Your task to perform on an android device: toggle notifications settings in the gmail app Image 0: 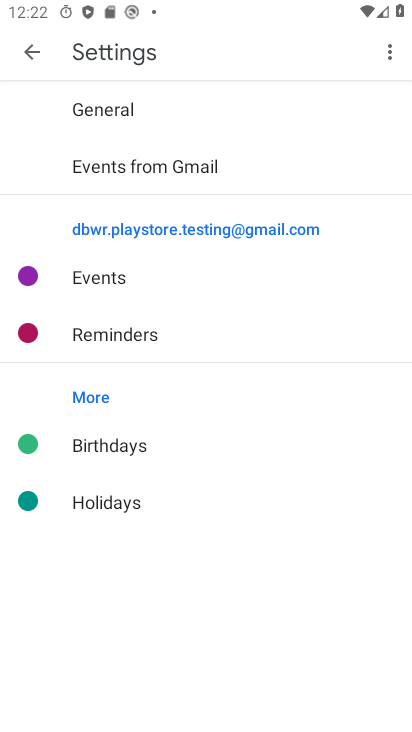
Step 0: press home button
Your task to perform on an android device: toggle notifications settings in the gmail app Image 1: 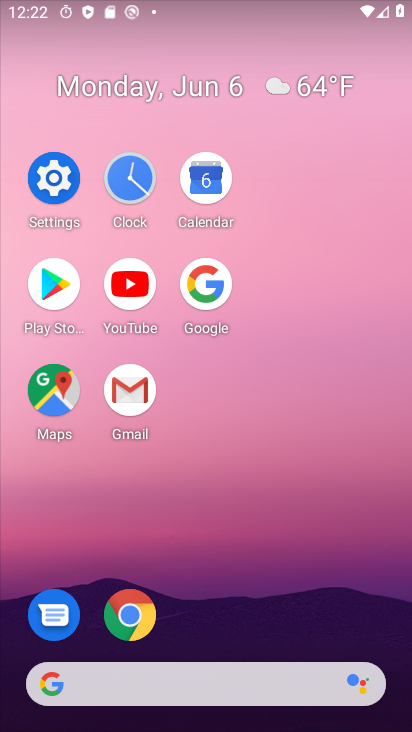
Step 1: click (133, 395)
Your task to perform on an android device: toggle notifications settings in the gmail app Image 2: 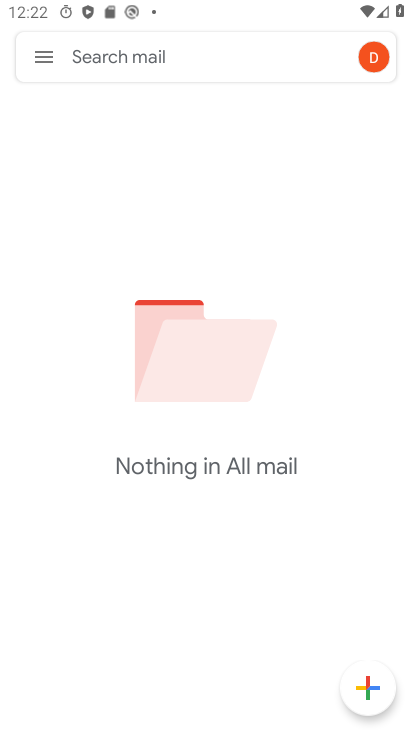
Step 2: click (29, 71)
Your task to perform on an android device: toggle notifications settings in the gmail app Image 3: 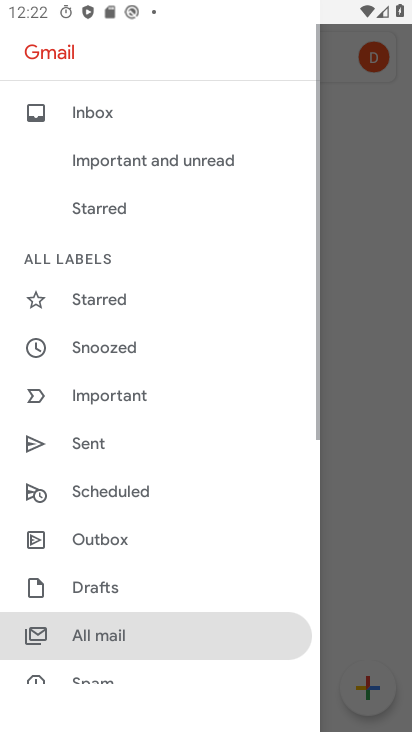
Step 3: drag from (127, 556) to (197, 262)
Your task to perform on an android device: toggle notifications settings in the gmail app Image 4: 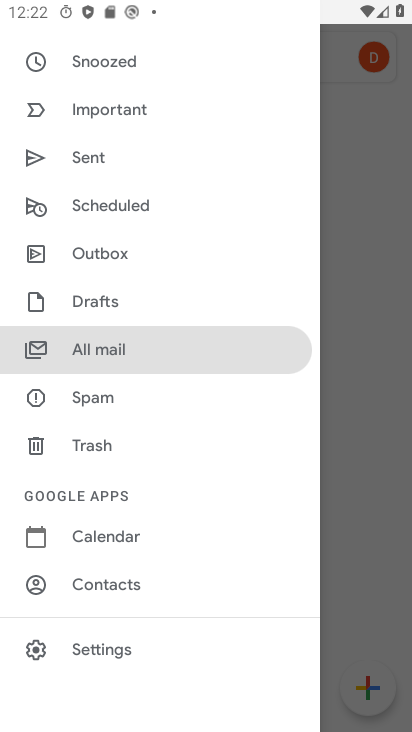
Step 4: click (103, 633)
Your task to perform on an android device: toggle notifications settings in the gmail app Image 5: 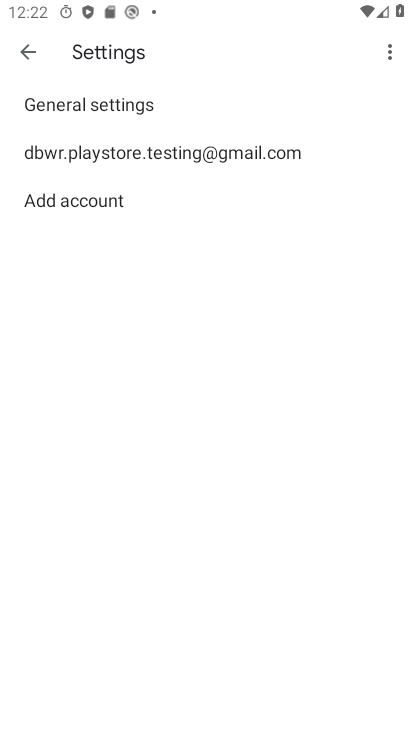
Step 5: click (169, 152)
Your task to perform on an android device: toggle notifications settings in the gmail app Image 6: 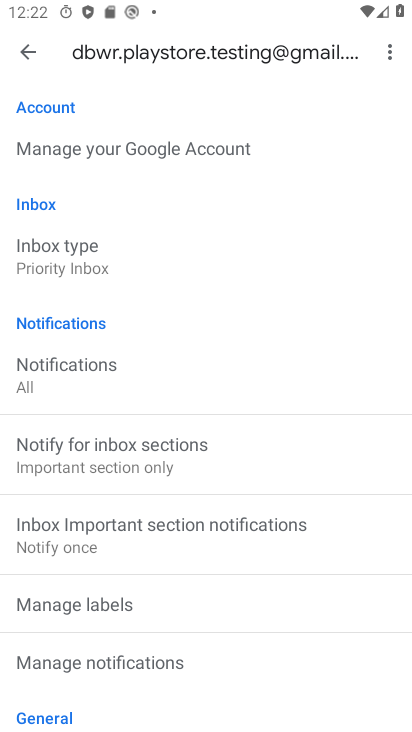
Step 6: click (91, 370)
Your task to perform on an android device: toggle notifications settings in the gmail app Image 7: 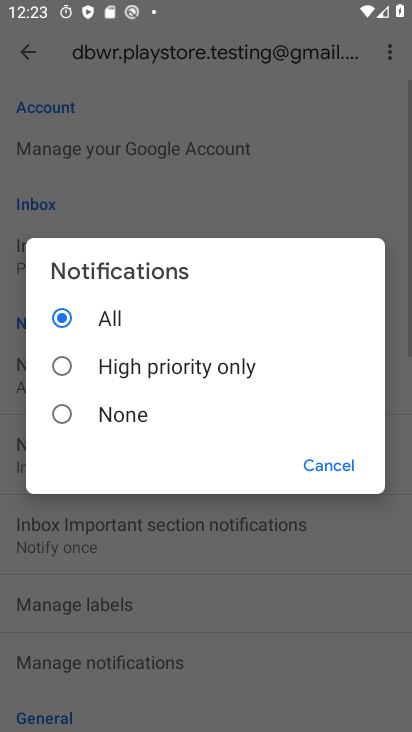
Step 7: click (96, 363)
Your task to perform on an android device: toggle notifications settings in the gmail app Image 8: 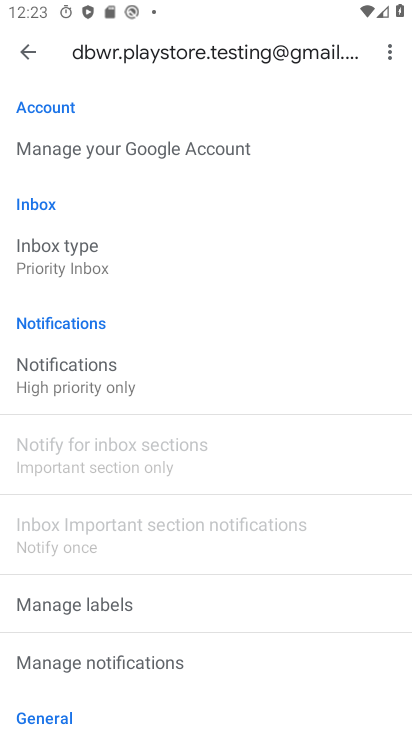
Step 8: task complete